Your task to perform on an android device: change the clock display to digital Image 0: 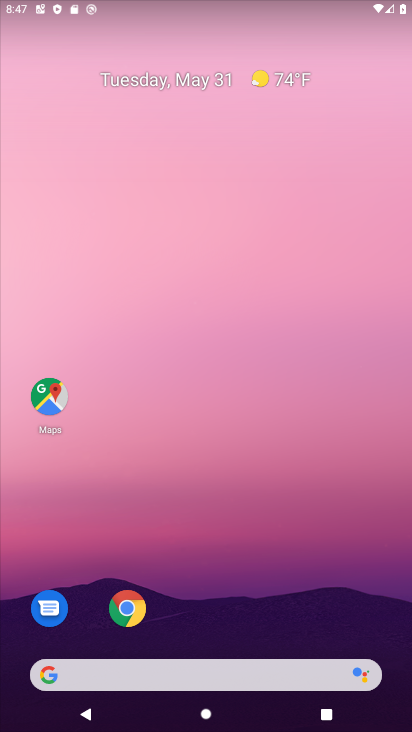
Step 0: drag from (225, 643) to (402, 463)
Your task to perform on an android device: change the clock display to digital Image 1: 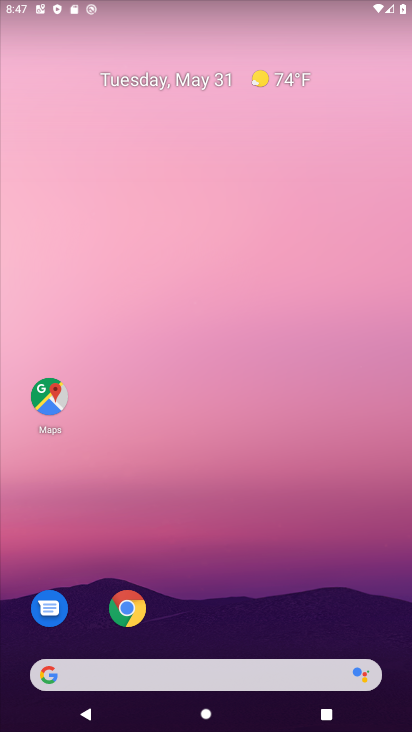
Step 1: drag from (220, 650) to (162, 70)
Your task to perform on an android device: change the clock display to digital Image 2: 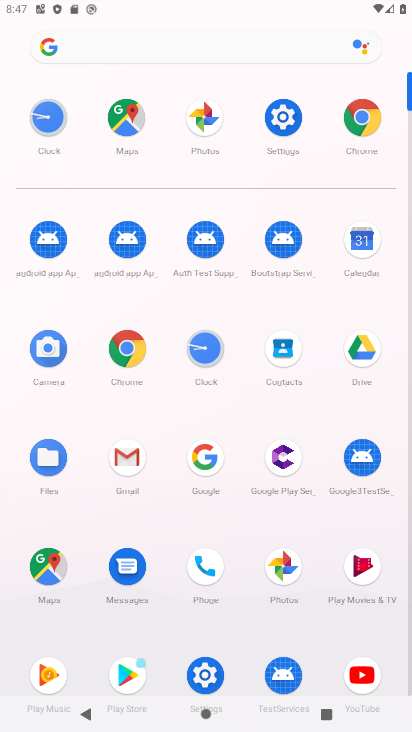
Step 2: click (207, 345)
Your task to perform on an android device: change the clock display to digital Image 3: 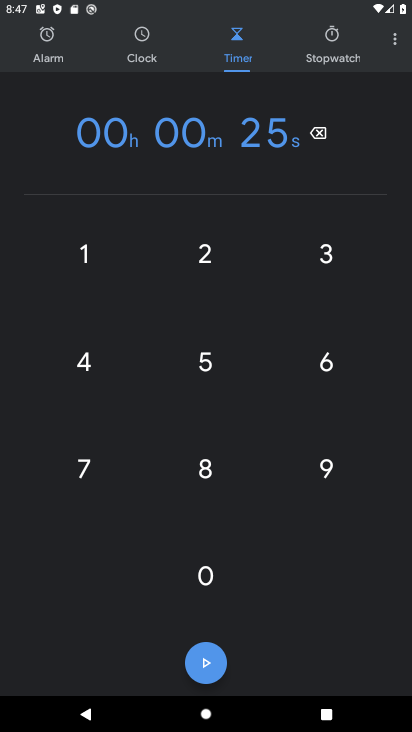
Step 3: click (399, 50)
Your task to perform on an android device: change the clock display to digital Image 4: 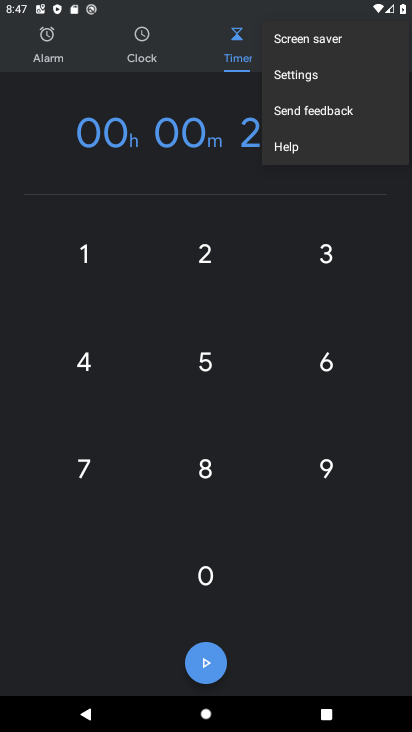
Step 4: click (317, 72)
Your task to perform on an android device: change the clock display to digital Image 5: 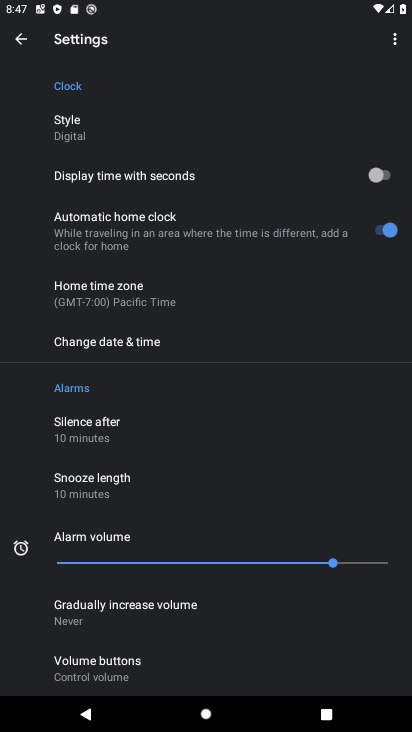
Step 5: task complete